Your task to perform on an android device: check storage Image 0: 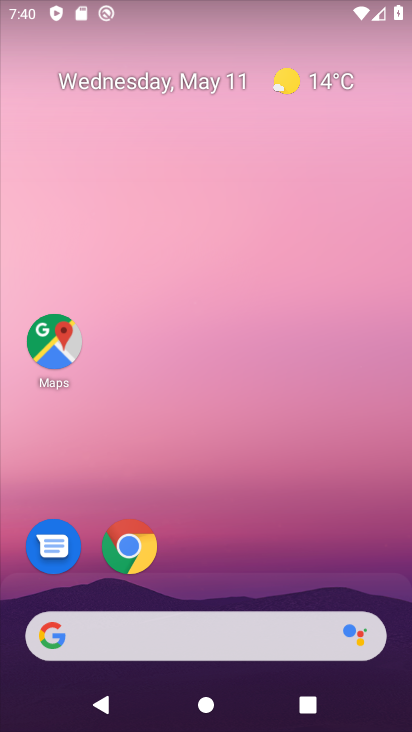
Step 0: drag from (333, 524) to (341, 85)
Your task to perform on an android device: check storage Image 1: 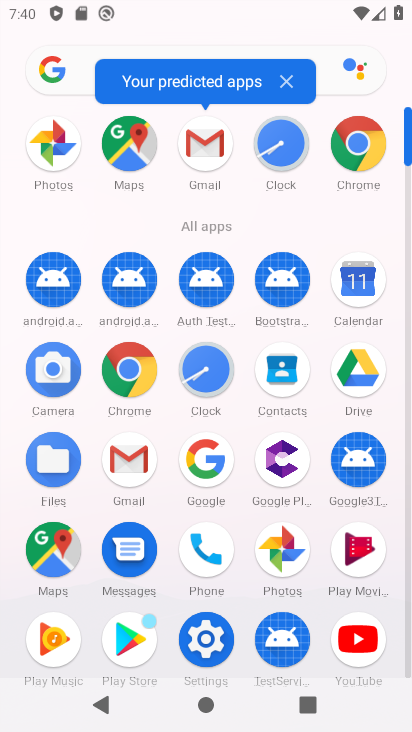
Step 1: click (210, 643)
Your task to perform on an android device: check storage Image 2: 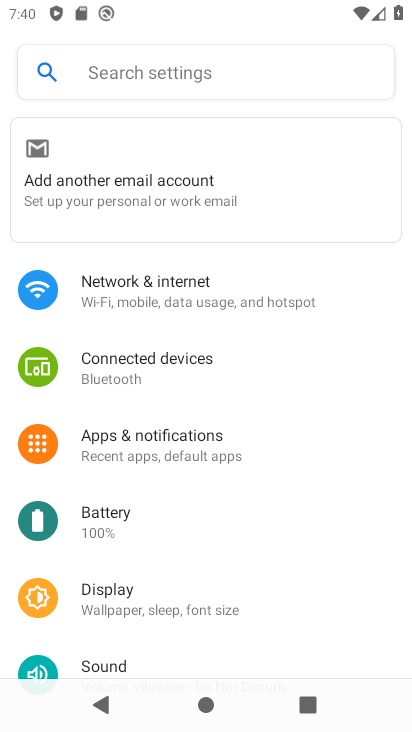
Step 2: drag from (157, 594) to (195, 348)
Your task to perform on an android device: check storage Image 3: 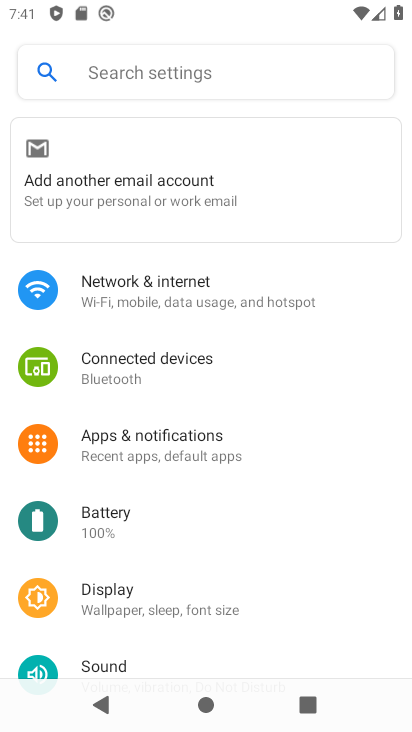
Step 3: drag from (224, 609) to (220, 287)
Your task to perform on an android device: check storage Image 4: 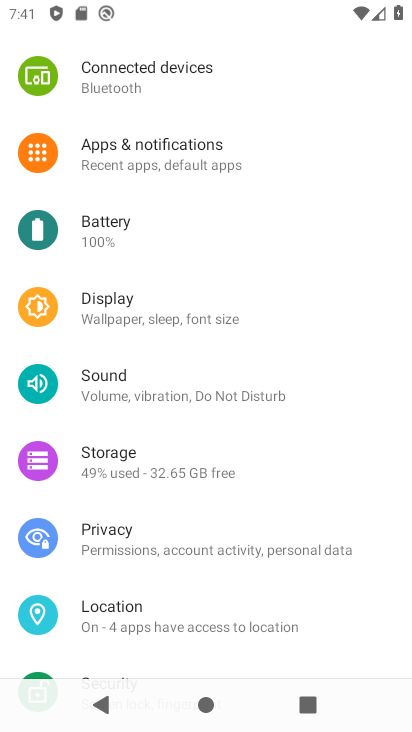
Step 4: click (99, 473)
Your task to perform on an android device: check storage Image 5: 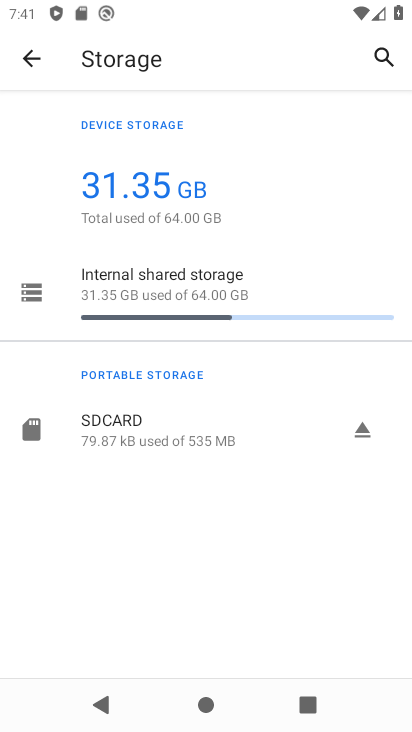
Step 5: task complete